Your task to perform on an android device: allow notifications from all sites in the chrome app Image 0: 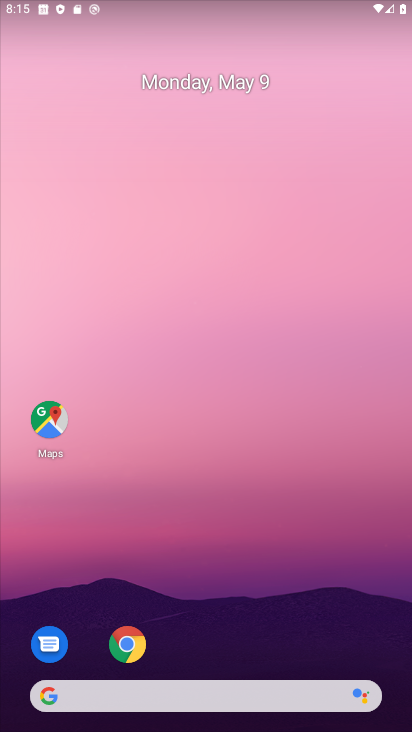
Step 0: click (122, 643)
Your task to perform on an android device: allow notifications from all sites in the chrome app Image 1: 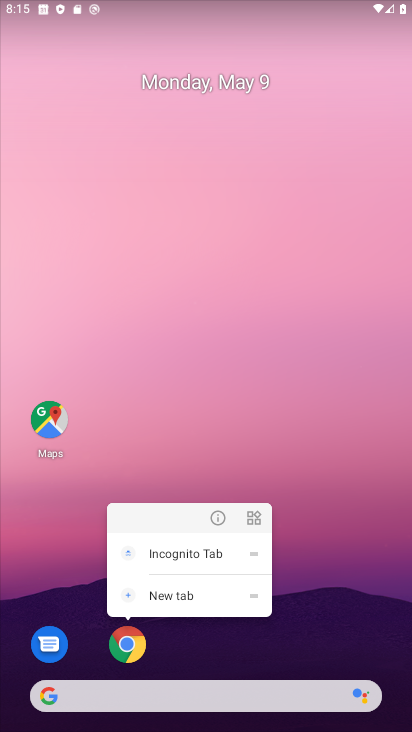
Step 1: click (133, 647)
Your task to perform on an android device: allow notifications from all sites in the chrome app Image 2: 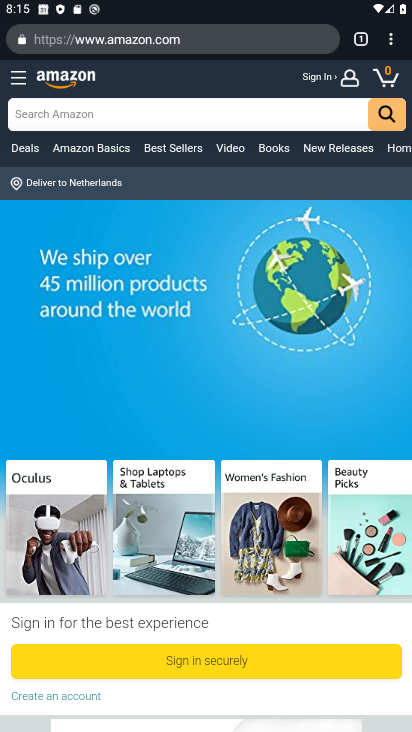
Step 2: drag from (393, 47) to (274, 522)
Your task to perform on an android device: allow notifications from all sites in the chrome app Image 3: 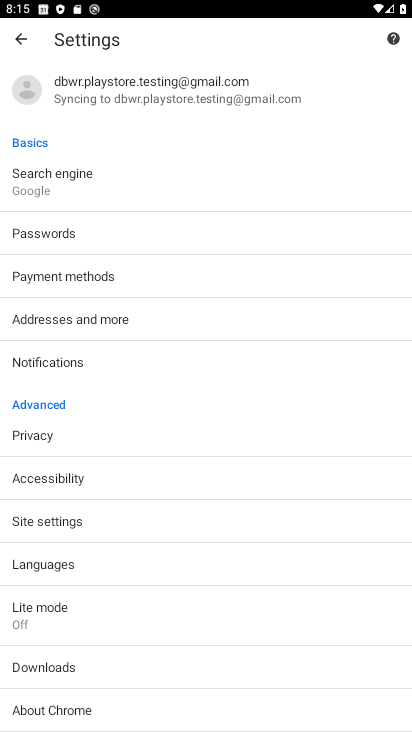
Step 3: click (26, 527)
Your task to perform on an android device: allow notifications from all sites in the chrome app Image 4: 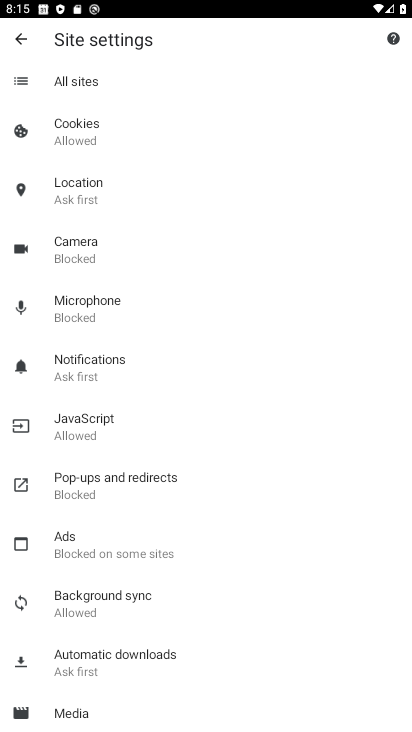
Step 4: click (122, 363)
Your task to perform on an android device: allow notifications from all sites in the chrome app Image 5: 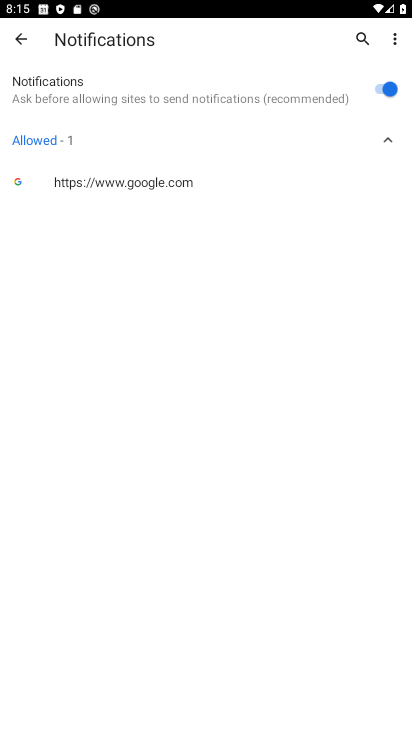
Step 5: task complete